Your task to perform on an android device: toggle show notifications on the lock screen Image 0: 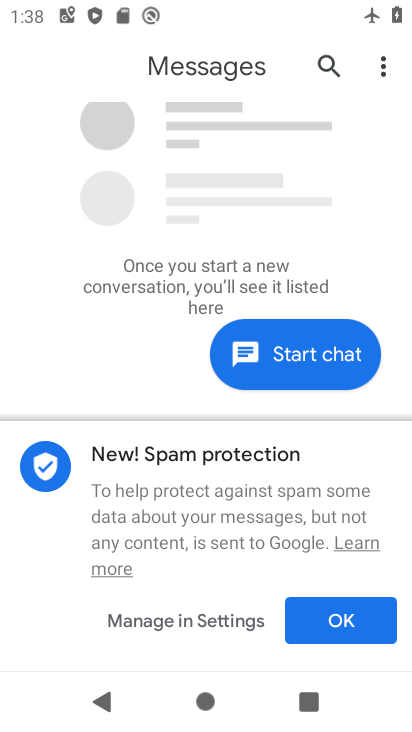
Step 0: press home button
Your task to perform on an android device: toggle show notifications on the lock screen Image 1: 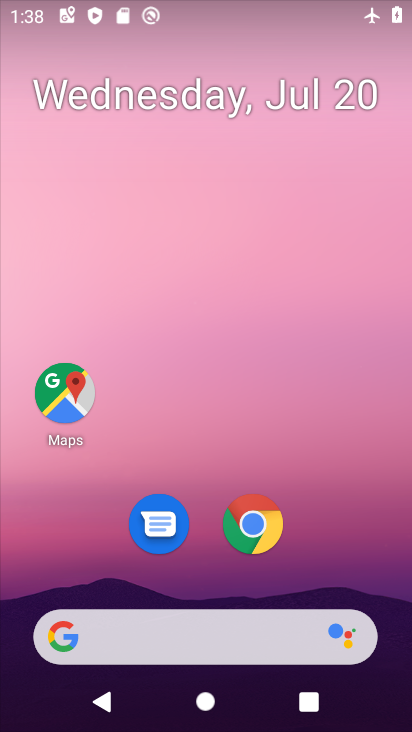
Step 1: drag from (282, 174) to (275, 6)
Your task to perform on an android device: toggle show notifications on the lock screen Image 2: 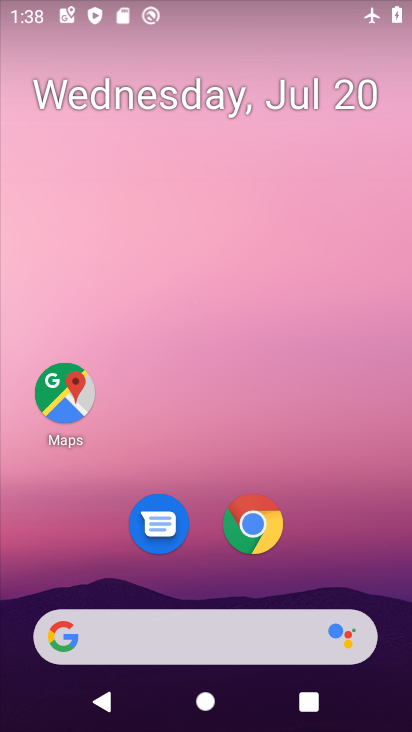
Step 2: drag from (308, 548) to (328, 5)
Your task to perform on an android device: toggle show notifications on the lock screen Image 3: 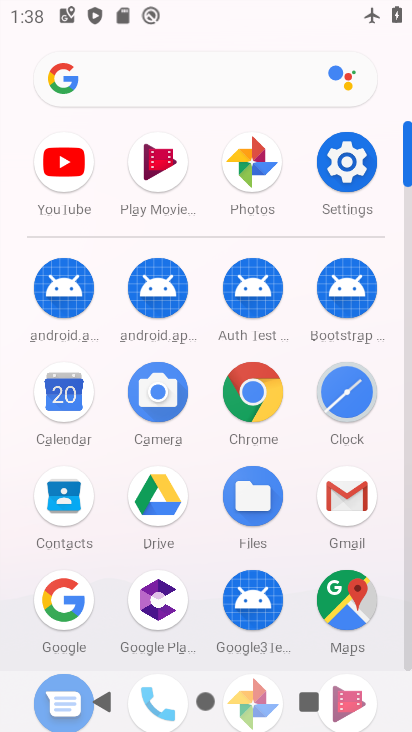
Step 3: click (345, 154)
Your task to perform on an android device: toggle show notifications on the lock screen Image 4: 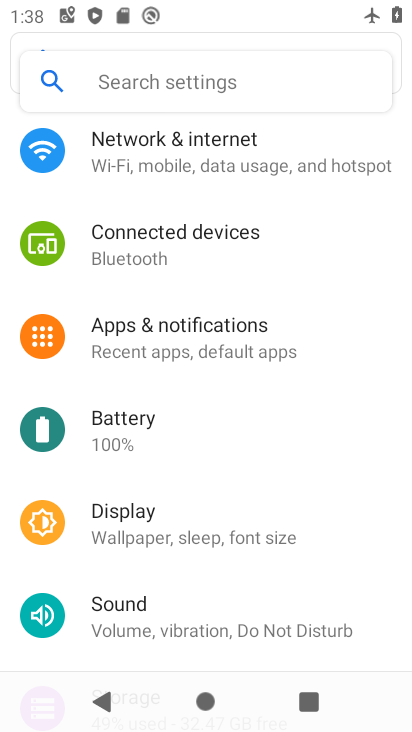
Step 4: click (261, 337)
Your task to perform on an android device: toggle show notifications on the lock screen Image 5: 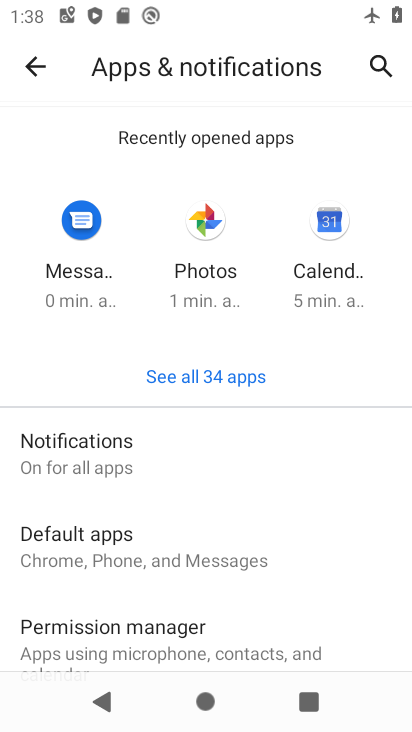
Step 5: click (113, 449)
Your task to perform on an android device: toggle show notifications on the lock screen Image 6: 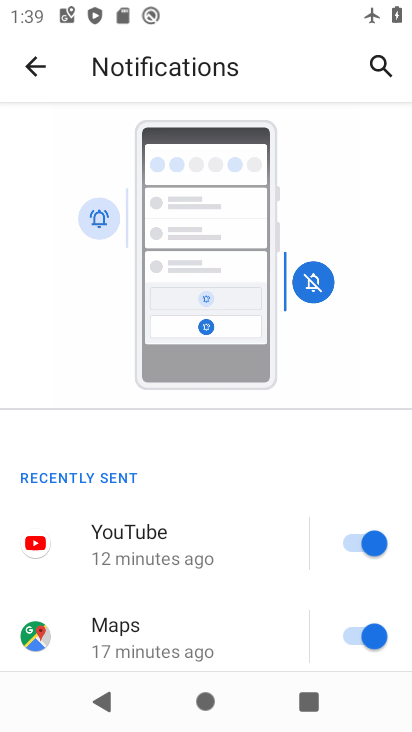
Step 6: drag from (222, 603) to (267, 206)
Your task to perform on an android device: toggle show notifications on the lock screen Image 7: 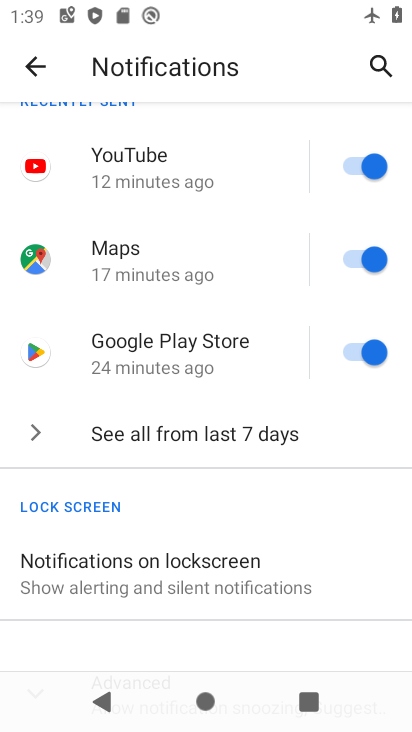
Step 7: drag from (226, 360) to (243, 176)
Your task to perform on an android device: toggle show notifications on the lock screen Image 8: 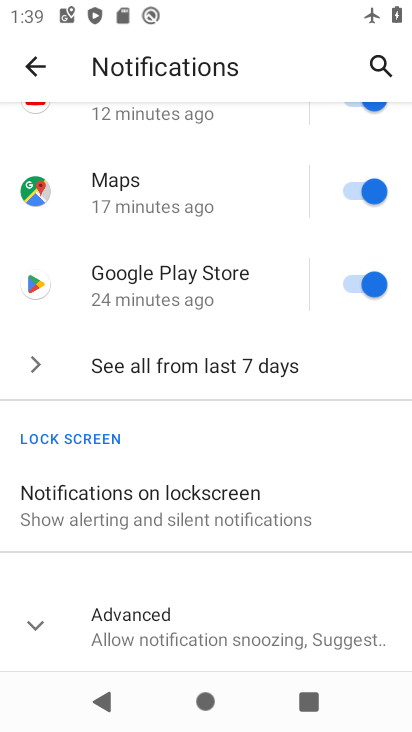
Step 8: click (238, 490)
Your task to perform on an android device: toggle show notifications on the lock screen Image 9: 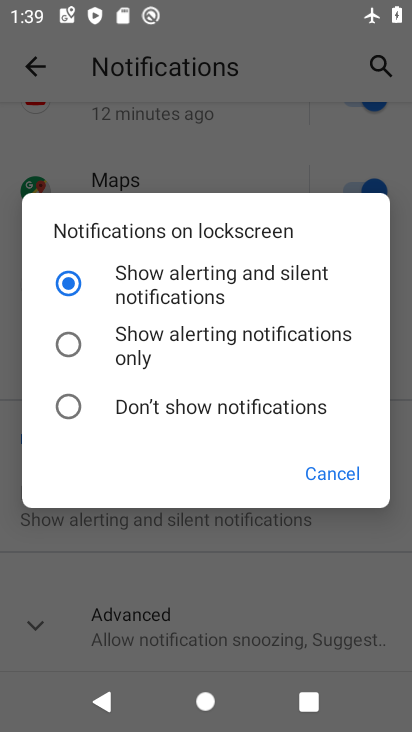
Step 9: click (69, 403)
Your task to perform on an android device: toggle show notifications on the lock screen Image 10: 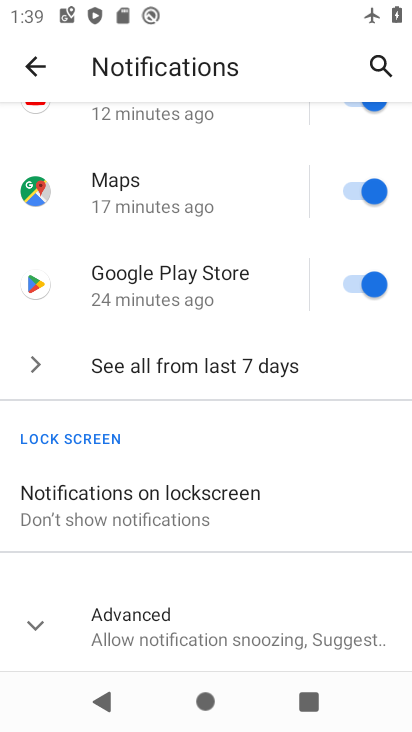
Step 10: task complete